Your task to perform on an android device: change the clock style Image 0: 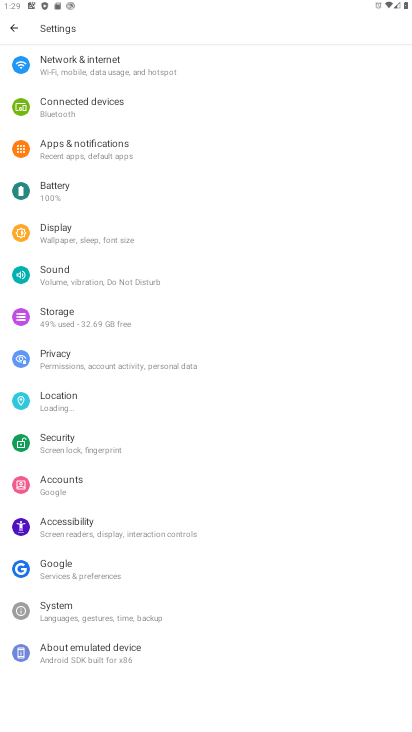
Step 0: press home button
Your task to perform on an android device: change the clock style Image 1: 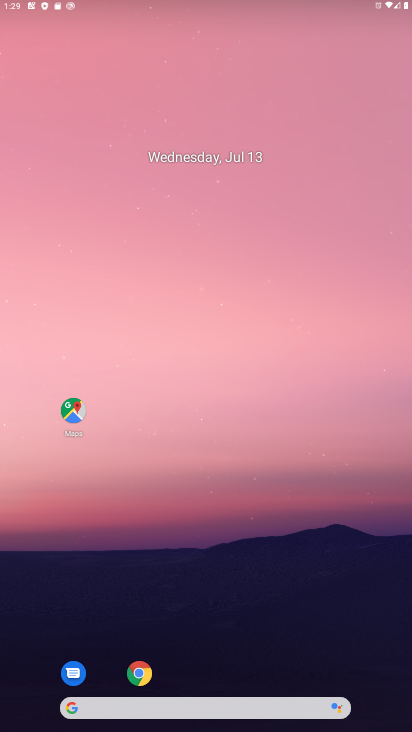
Step 1: drag from (215, 657) to (228, 186)
Your task to perform on an android device: change the clock style Image 2: 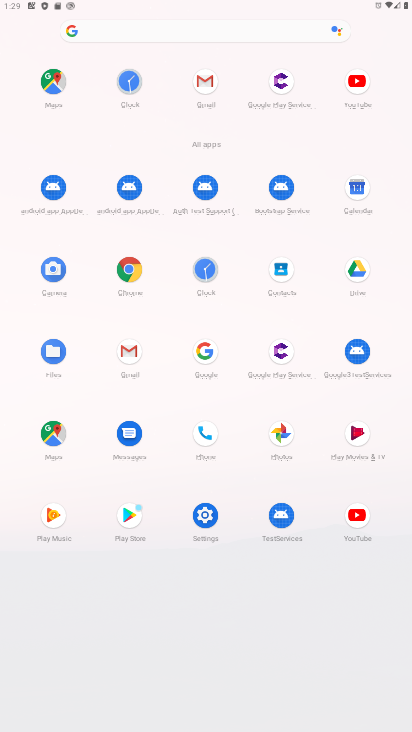
Step 2: click (208, 270)
Your task to perform on an android device: change the clock style Image 3: 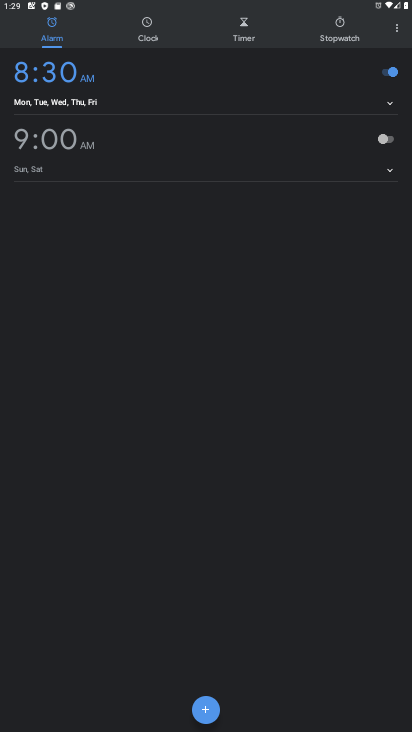
Step 3: click (393, 31)
Your task to perform on an android device: change the clock style Image 4: 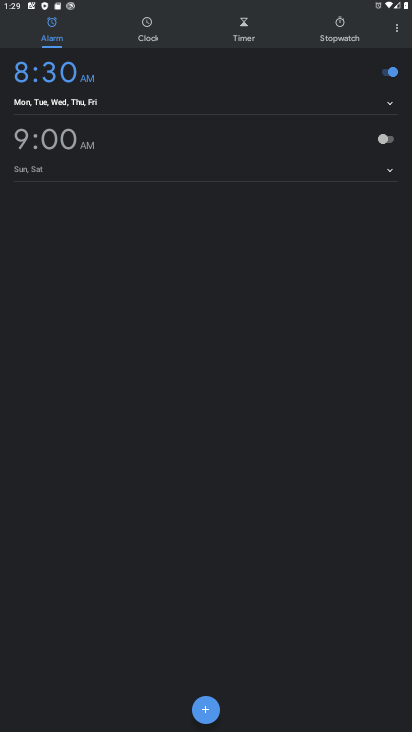
Step 4: click (395, 31)
Your task to perform on an android device: change the clock style Image 5: 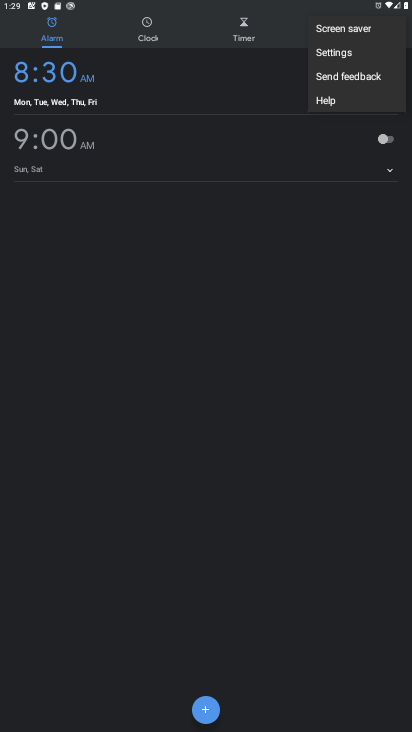
Step 5: click (336, 53)
Your task to perform on an android device: change the clock style Image 6: 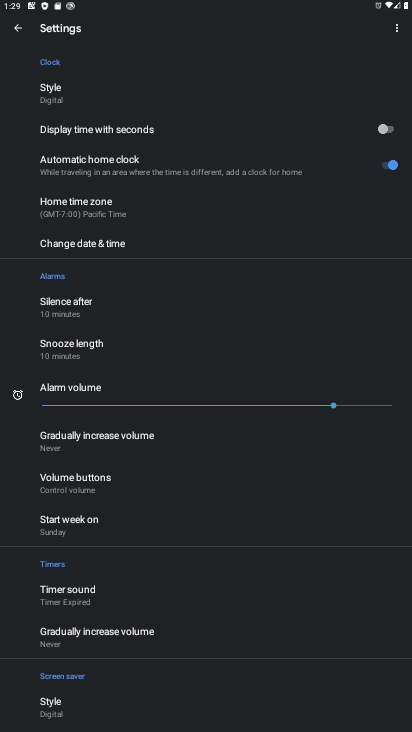
Step 6: click (88, 92)
Your task to perform on an android device: change the clock style Image 7: 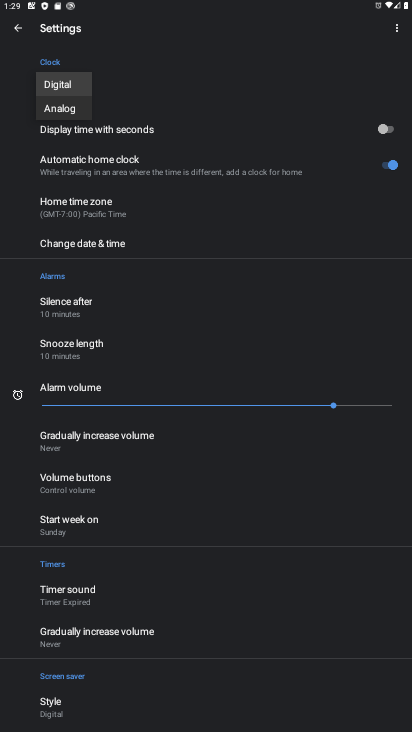
Step 7: click (53, 113)
Your task to perform on an android device: change the clock style Image 8: 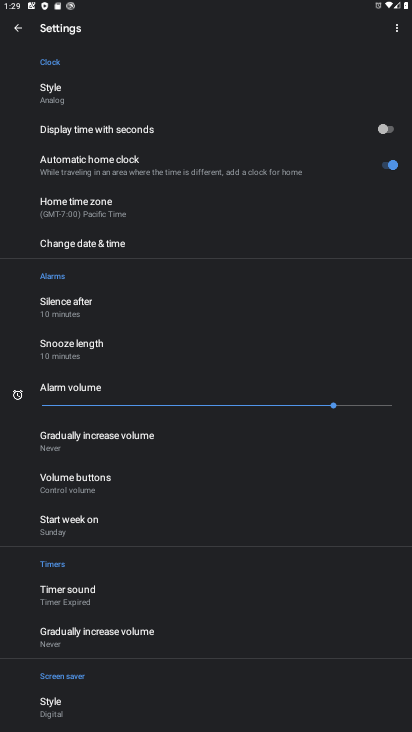
Step 8: task complete